Your task to perform on an android device: make emails show in primary in the gmail app Image 0: 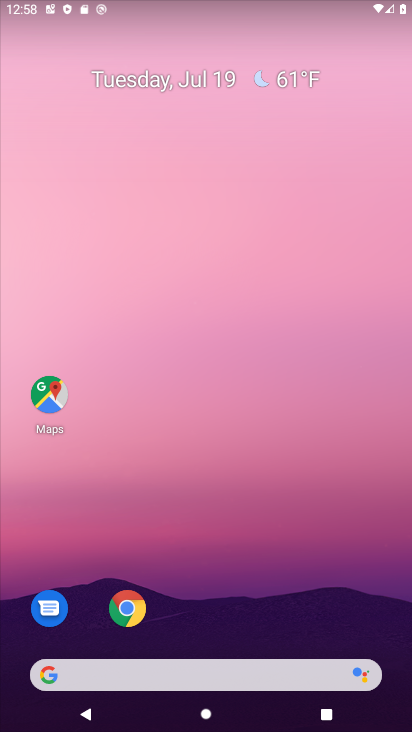
Step 0: drag from (310, 616) to (175, 3)
Your task to perform on an android device: make emails show in primary in the gmail app Image 1: 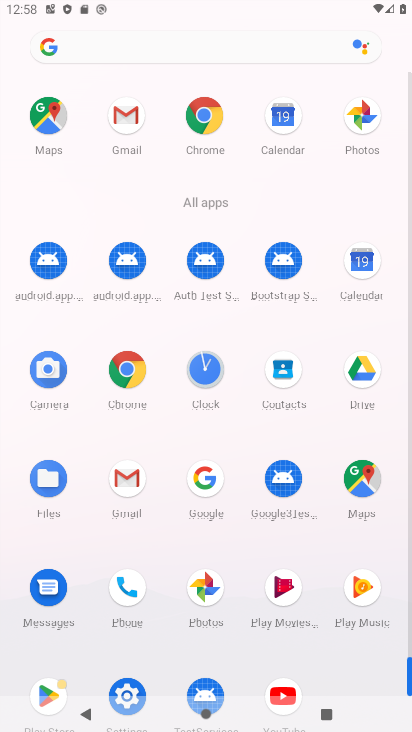
Step 1: click (127, 141)
Your task to perform on an android device: make emails show in primary in the gmail app Image 2: 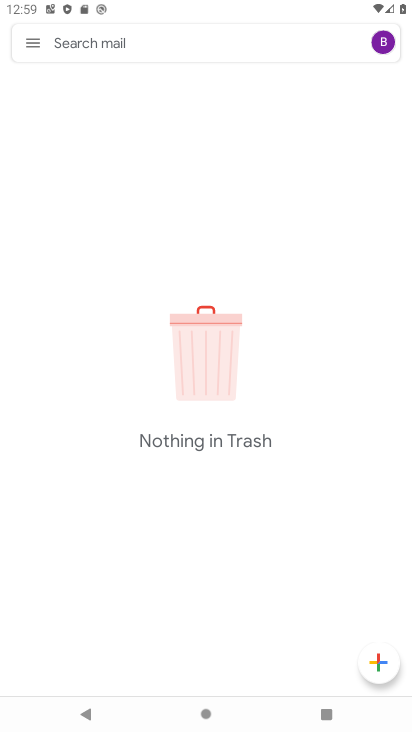
Step 2: click (32, 40)
Your task to perform on an android device: make emails show in primary in the gmail app Image 3: 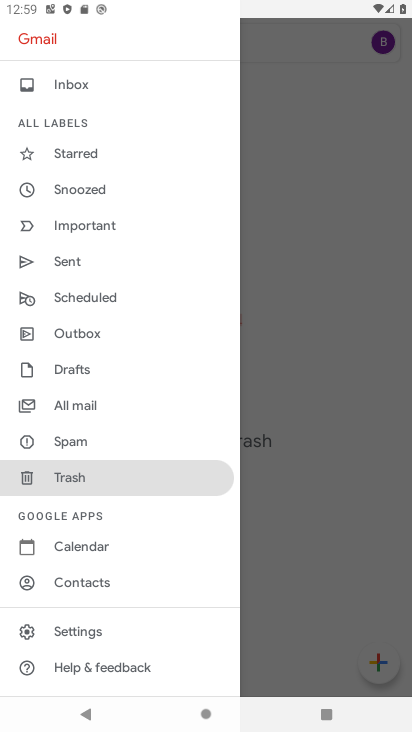
Step 3: drag from (132, 595) to (114, 154)
Your task to perform on an android device: make emails show in primary in the gmail app Image 4: 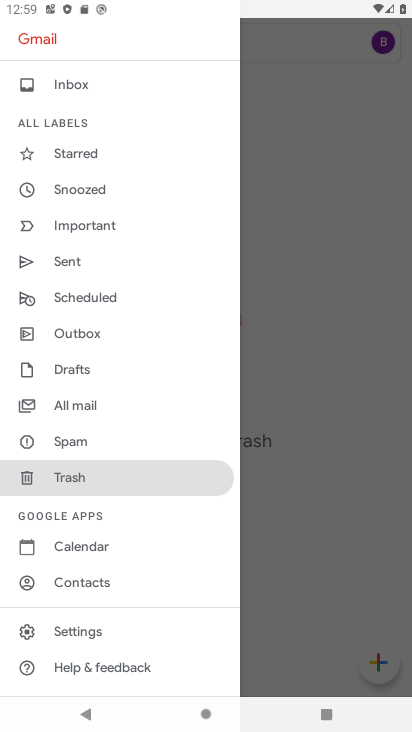
Step 4: click (74, 640)
Your task to perform on an android device: make emails show in primary in the gmail app Image 5: 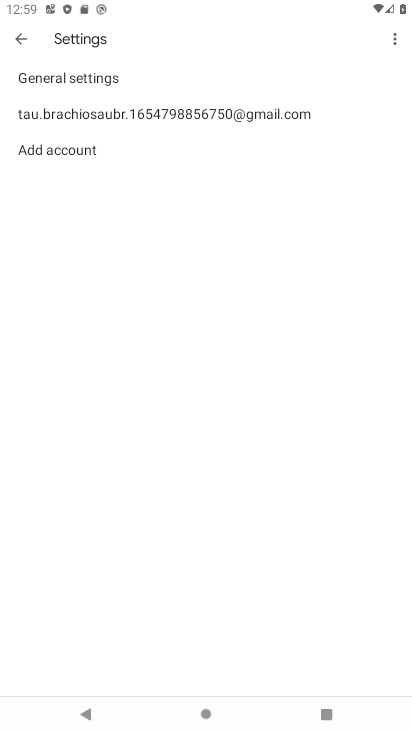
Step 5: click (87, 121)
Your task to perform on an android device: make emails show in primary in the gmail app Image 6: 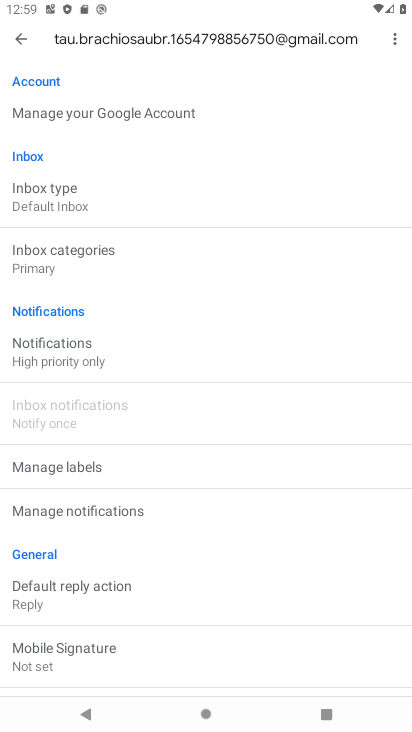
Step 6: task complete